Your task to perform on an android device: turn on showing notifications on the lock screen Image 0: 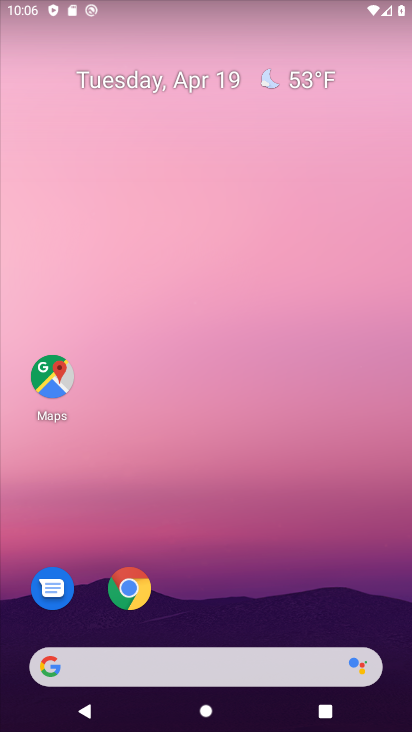
Step 0: drag from (166, 668) to (123, 181)
Your task to perform on an android device: turn on showing notifications on the lock screen Image 1: 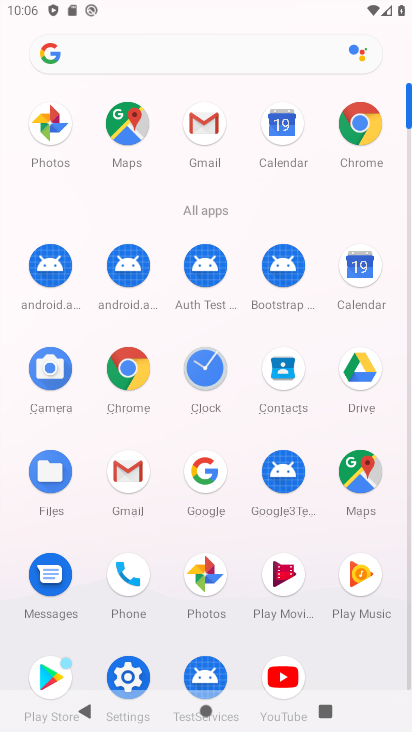
Step 1: click (129, 685)
Your task to perform on an android device: turn on showing notifications on the lock screen Image 2: 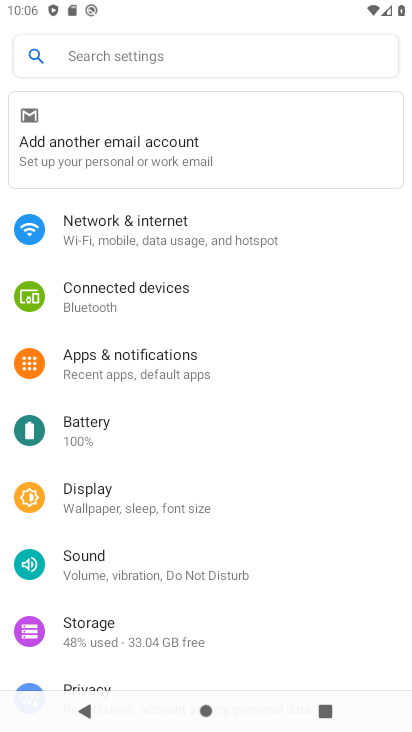
Step 2: click (136, 372)
Your task to perform on an android device: turn on showing notifications on the lock screen Image 3: 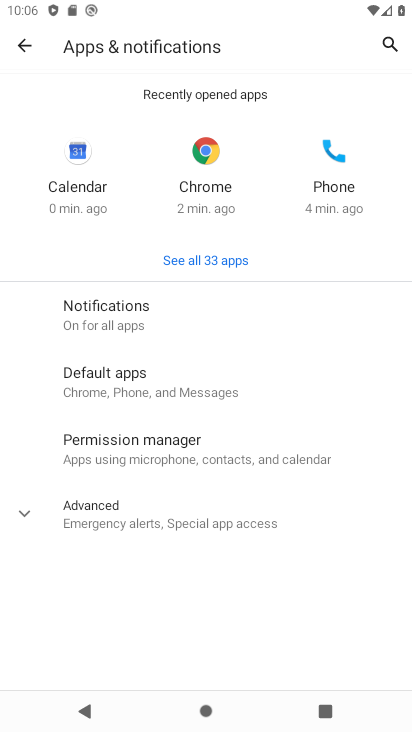
Step 3: click (151, 324)
Your task to perform on an android device: turn on showing notifications on the lock screen Image 4: 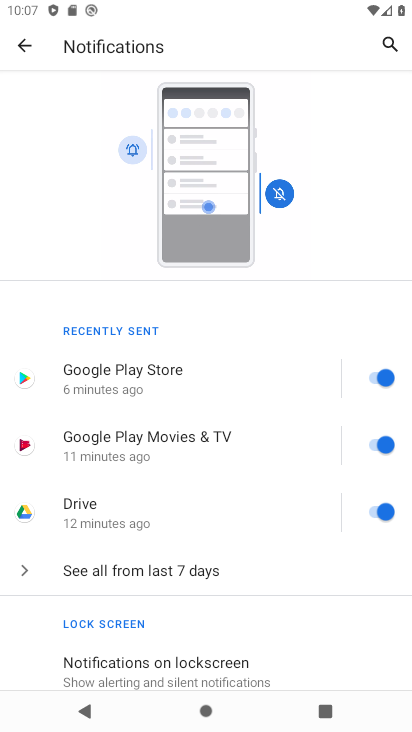
Step 4: drag from (216, 594) to (126, 154)
Your task to perform on an android device: turn on showing notifications on the lock screen Image 5: 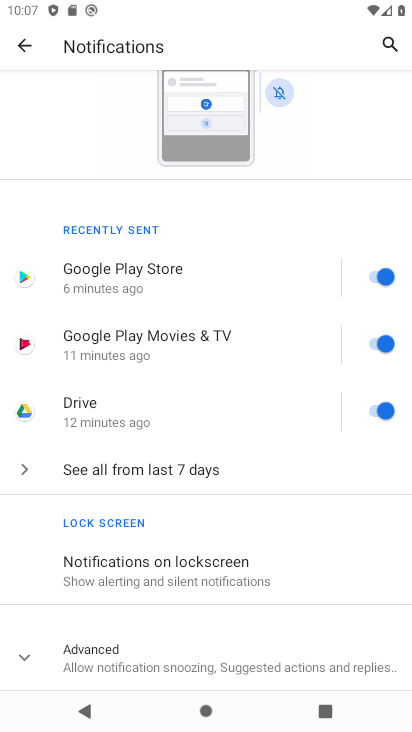
Step 5: click (208, 567)
Your task to perform on an android device: turn on showing notifications on the lock screen Image 6: 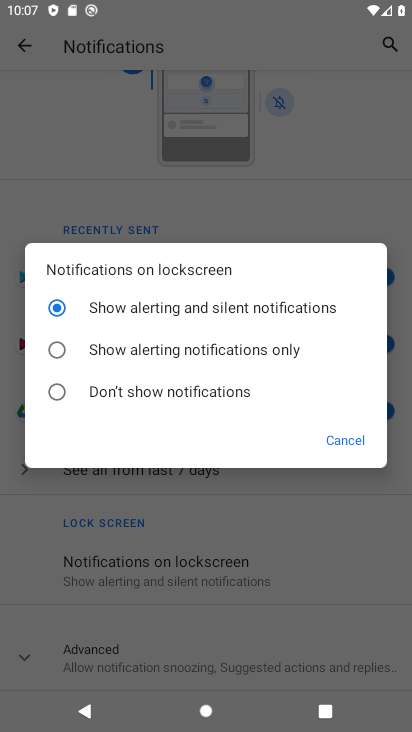
Step 6: click (191, 303)
Your task to perform on an android device: turn on showing notifications on the lock screen Image 7: 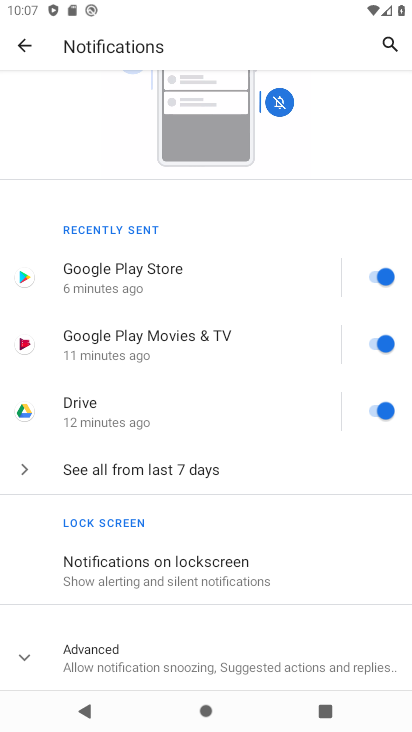
Step 7: task complete